Your task to perform on an android device: Open Yahoo.com Image 0: 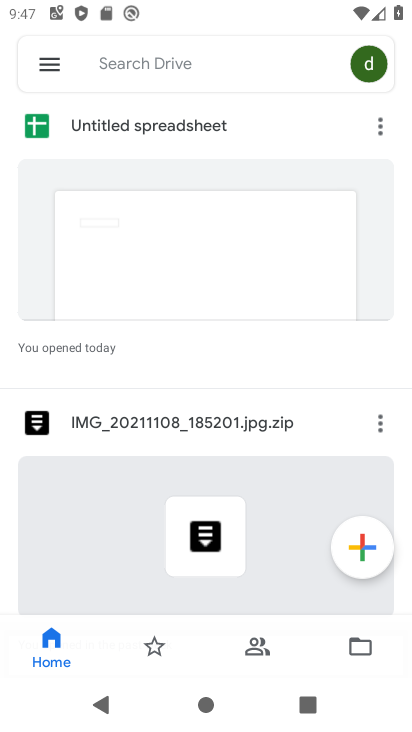
Step 0: press home button
Your task to perform on an android device: Open Yahoo.com Image 1: 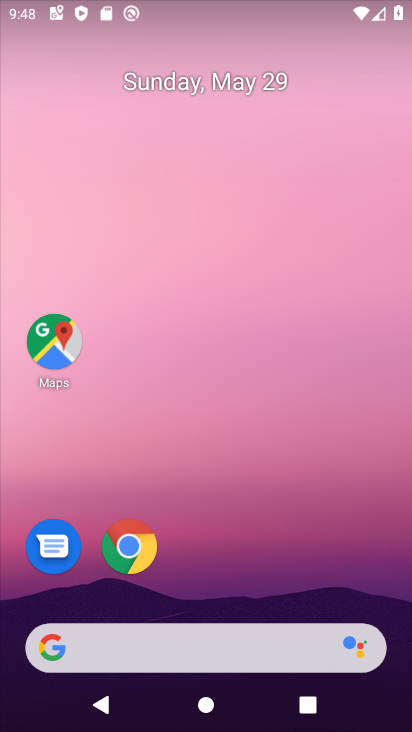
Step 1: click (132, 548)
Your task to perform on an android device: Open Yahoo.com Image 2: 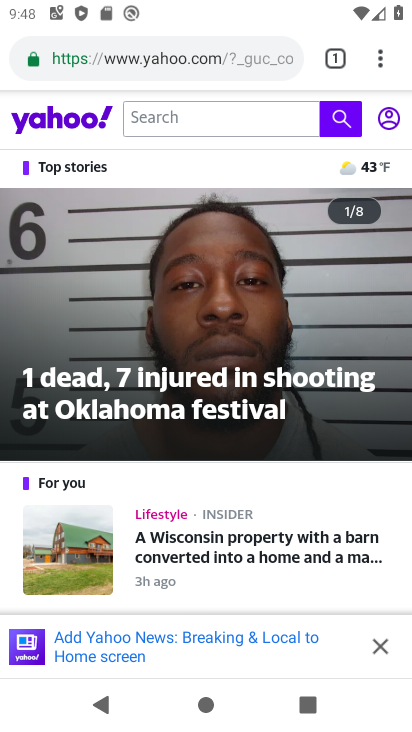
Step 2: task complete